Your task to perform on an android device: empty trash in the gmail app Image 0: 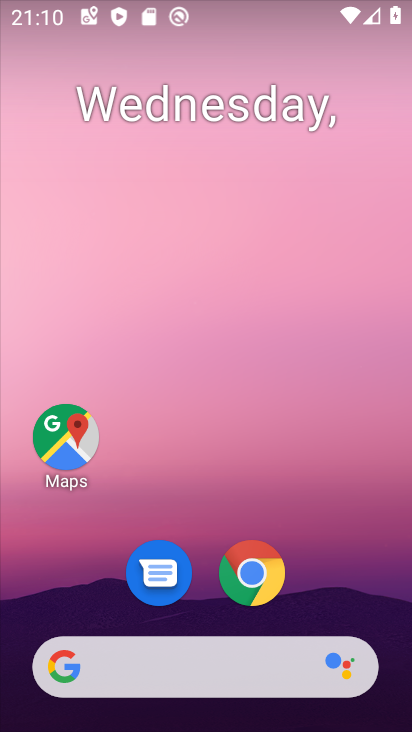
Step 0: drag from (360, 540) to (342, 166)
Your task to perform on an android device: empty trash in the gmail app Image 1: 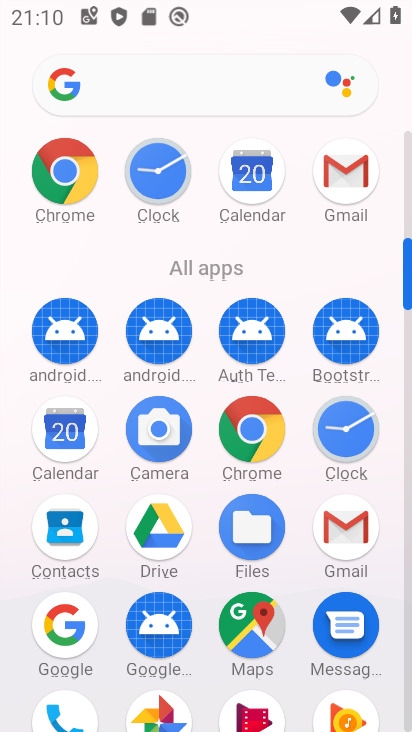
Step 1: click (343, 187)
Your task to perform on an android device: empty trash in the gmail app Image 2: 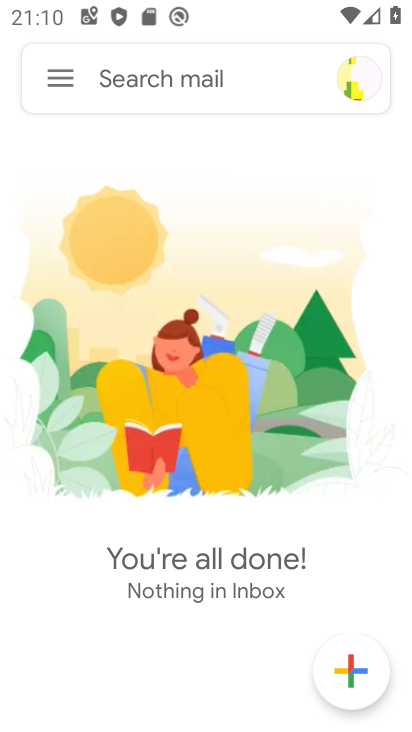
Step 2: click (67, 81)
Your task to perform on an android device: empty trash in the gmail app Image 3: 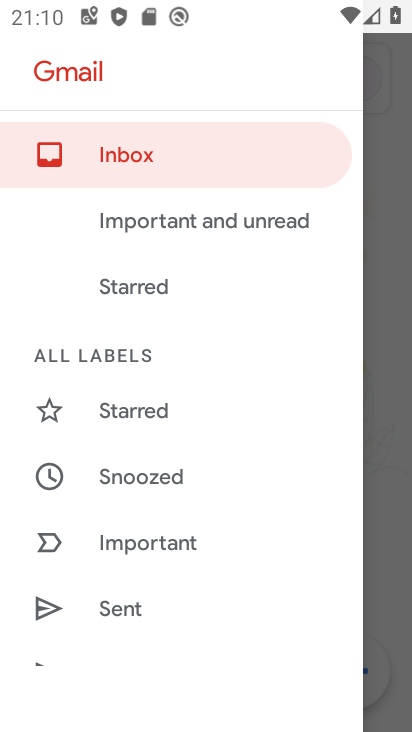
Step 3: drag from (295, 450) to (295, 340)
Your task to perform on an android device: empty trash in the gmail app Image 4: 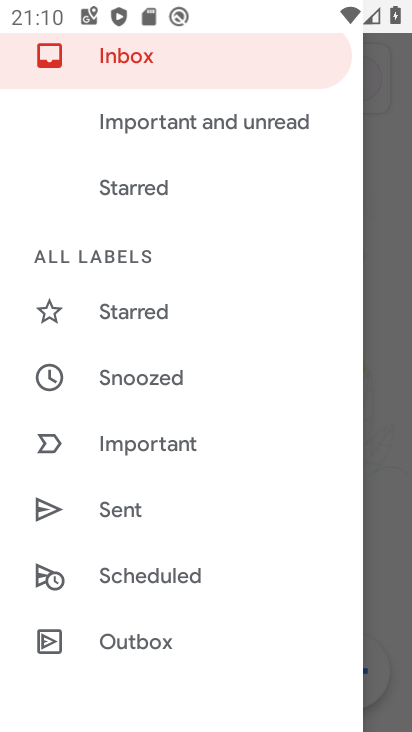
Step 4: drag from (265, 552) to (255, 386)
Your task to perform on an android device: empty trash in the gmail app Image 5: 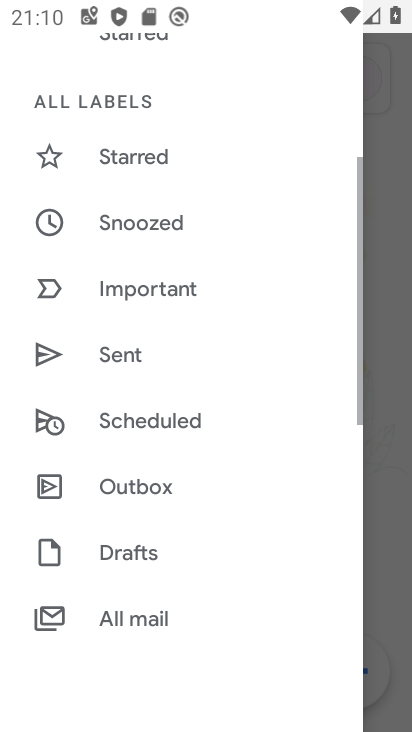
Step 5: drag from (291, 624) to (281, 326)
Your task to perform on an android device: empty trash in the gmail app Image 6: 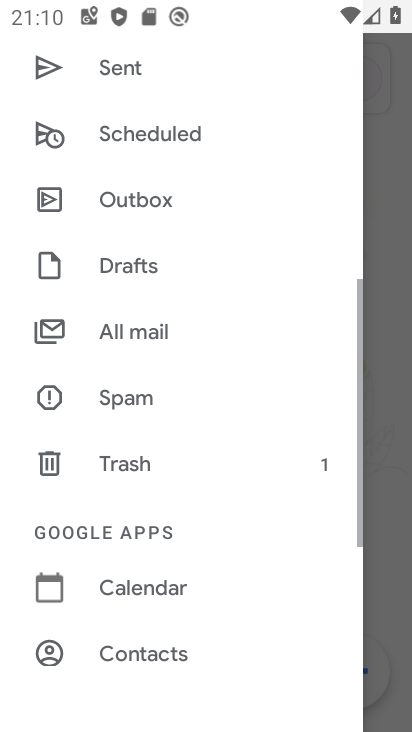
Step 6: drag from (270, 604) to (284, 277)
Your task to perform on an android device: empty trash in the gmail app Image 7: 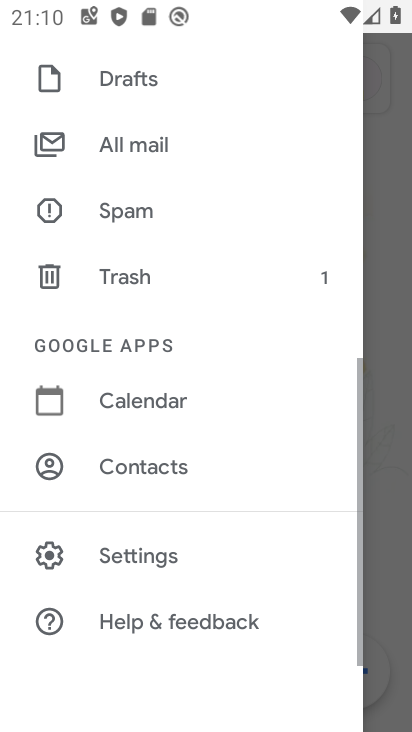
Step 7: click (109, 278)
Your task to perform on an android device: empty trash in the gmail app Image 8: 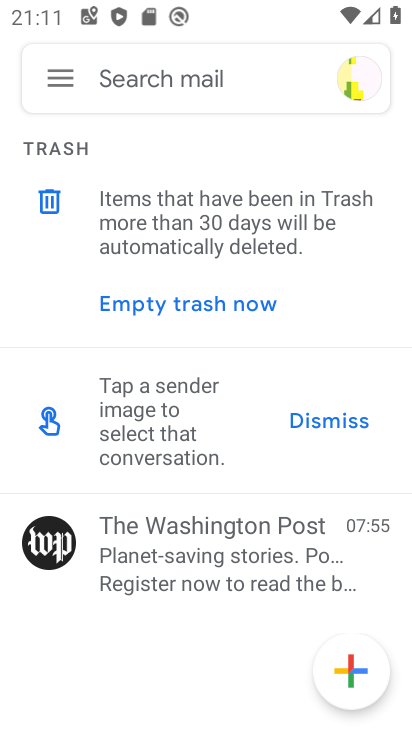
Step 8: click (169, 300)
Your task to perform on an android device: empty trash in the gmail app Image 9: 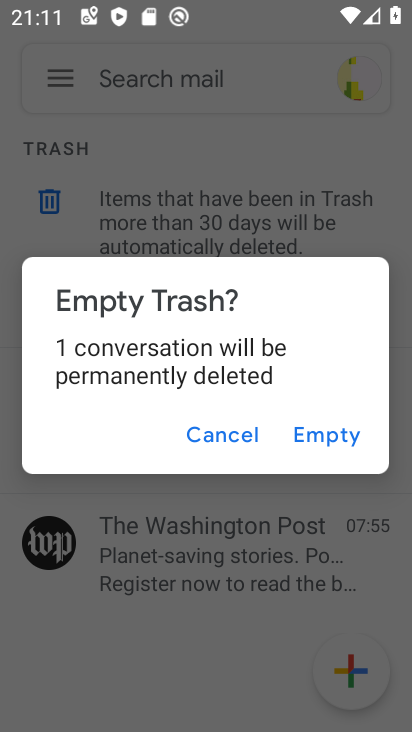
Step 9: click (315, 429)
Your task to perform on an android device: empty trash in the gmail app Image 10: 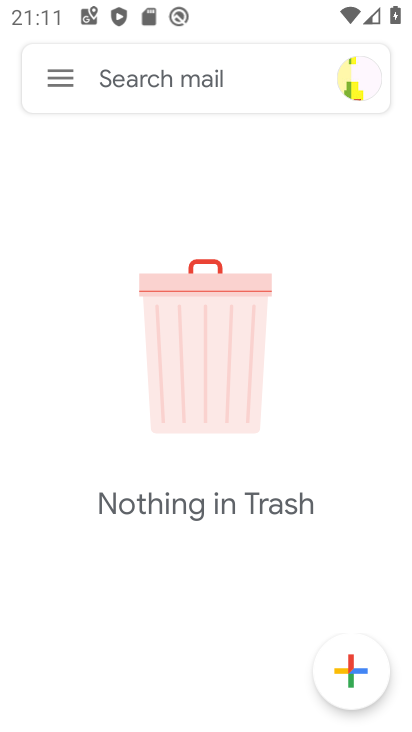
Step 10: task complete